Your task to perform on an android device: turn off priority inbox in the gmail app Image 0: 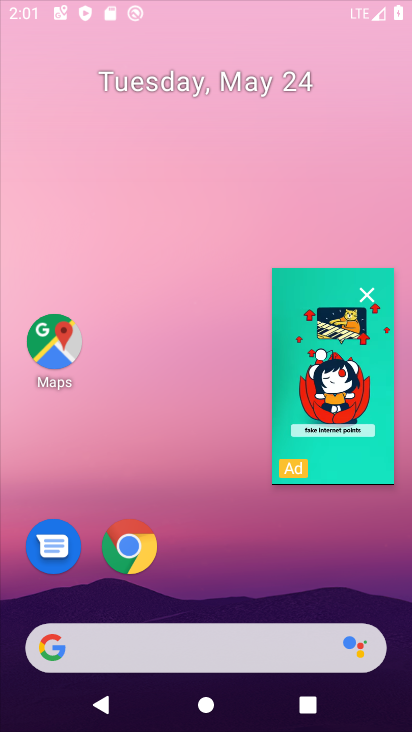
Step 0: click (343, 198)
Your task to perform on an android device: turn off priority inbox in the gmail app Image 1: 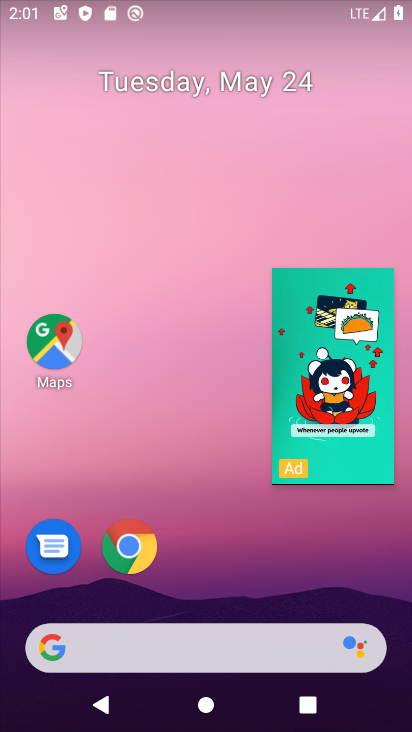
Step 1: click (370, 290)
Your task to perform on an android device: turn off priority inbox in the gmail app Image 2: 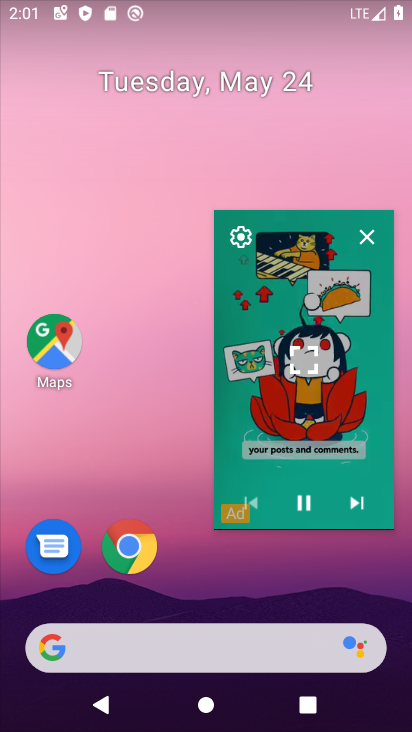
Step 2: click (374, 234)
Your task to perform on an android device: turn off priority inbox in the gmail app Image 3: 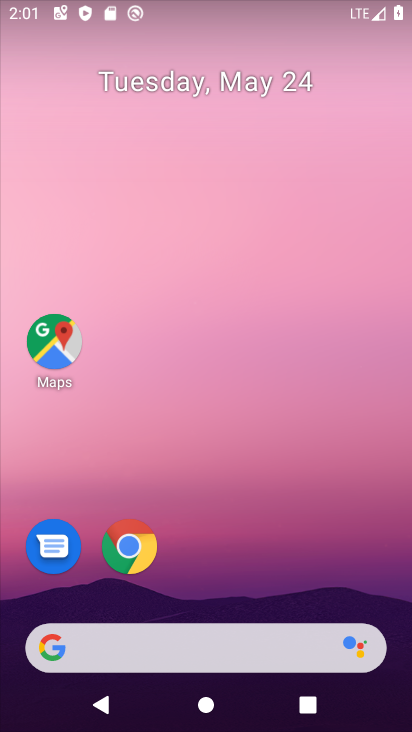
Step 3: drag from (187, 585) to (268, 39)
Your task to perform on an android device: turn off priority inbox in the gmail app Image 4: 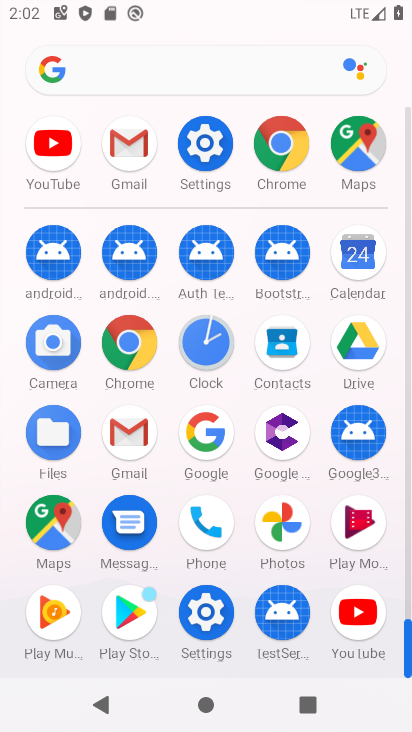
Step 4: click (128, 425)
Your task to perform on an android device: turn off priority inbox in the gmail app Image 5: 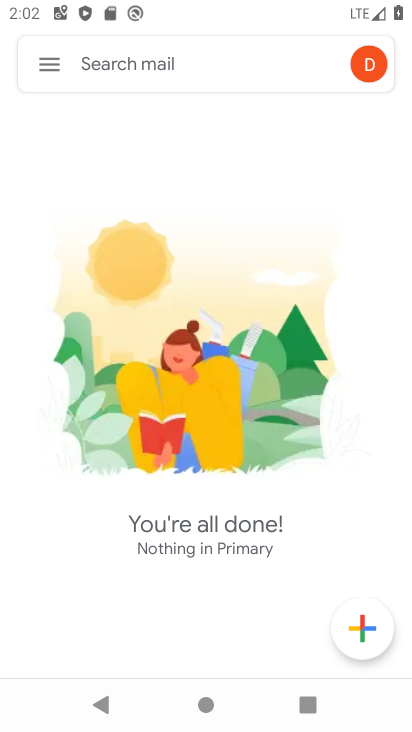
Step 5: click (45, 59)
Your task to perform on an android device: turn off priority inbox in the gmail app Image 6: 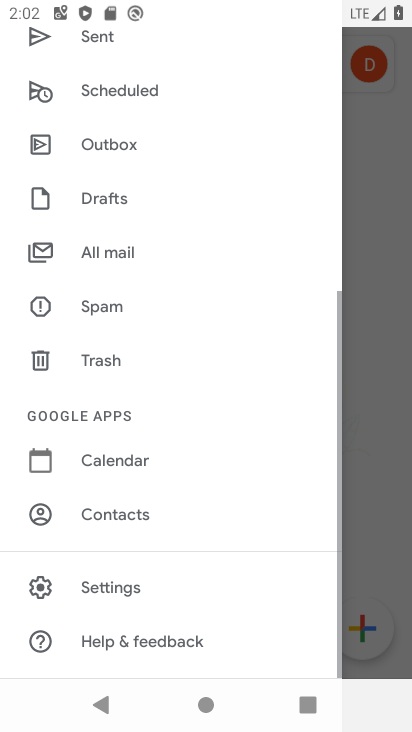
Step 6: click (109, 592)
Your task to perform on an android device: turn off priority inbox in the gmail app Image 7: 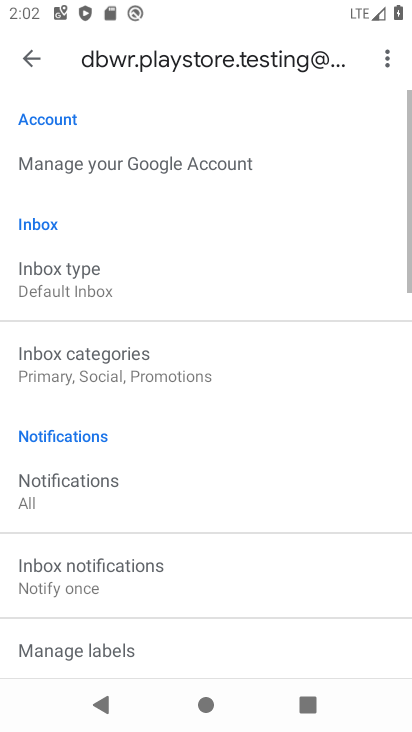
Step 7: drag from (139, 179) to (156, 635)
Your task to perform on an android device: turn off priority inbox in the gmail app Image 8: 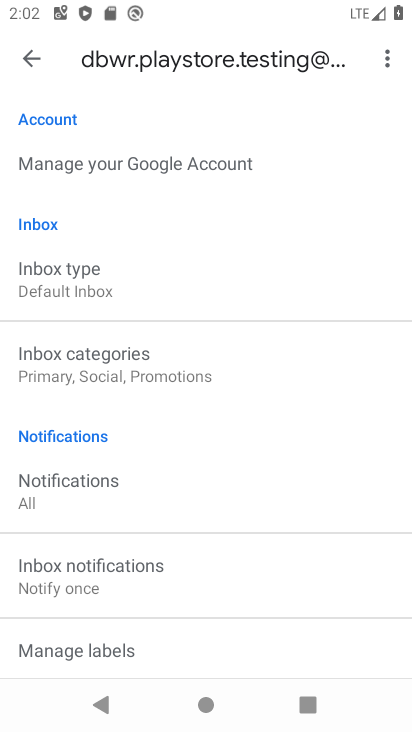
Step 8: click (106, 298)
Your task to perform on an android device: turn off priority inbox in the gmail app Image 9: 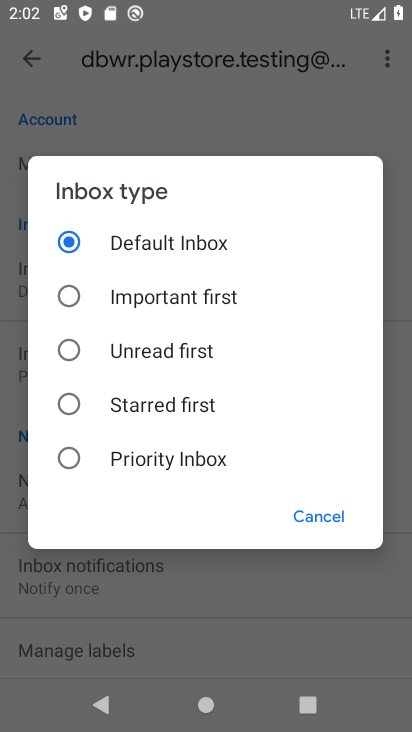
Step 9: task complete